Your task to perform on an android device: change notification settings in the gmail app Image 0: 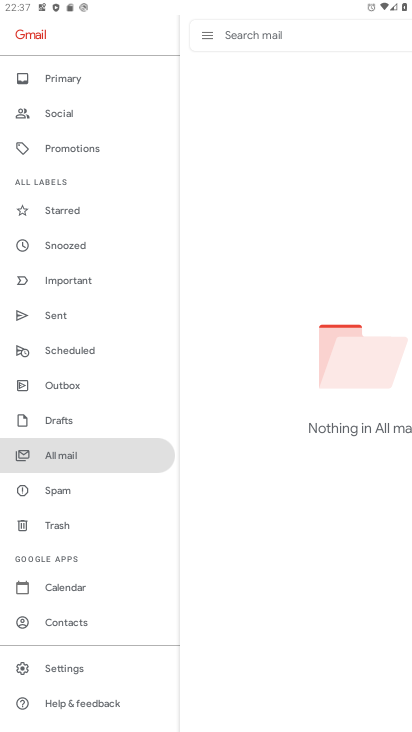
Step 0: click (67, 665)
Your task to perform on an android device: change notification settings in the gmail app Image 1: 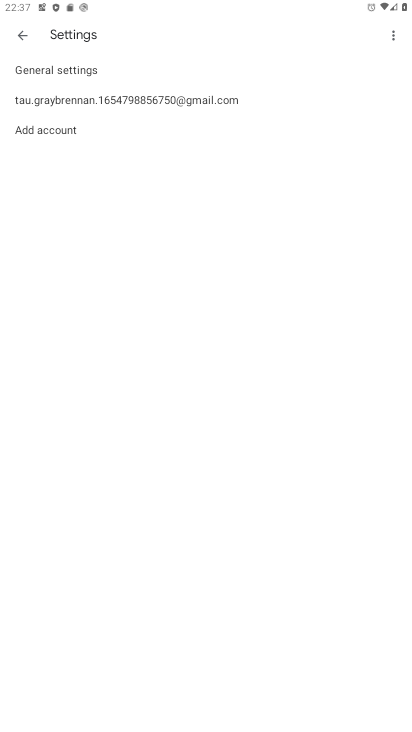
Step 1: click (75, 96)
Your task to perform on an android device: change notification settings in the gmail app Image 2: 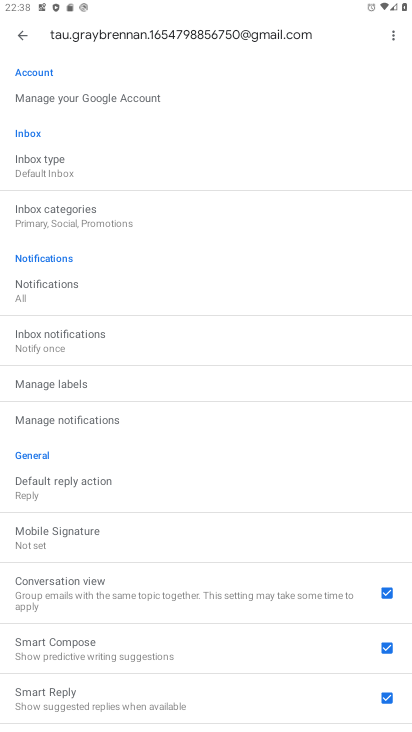
Step 2: click (34, 284)
Your task to perform on an android device: change notification settings in the gmail app Image 3: 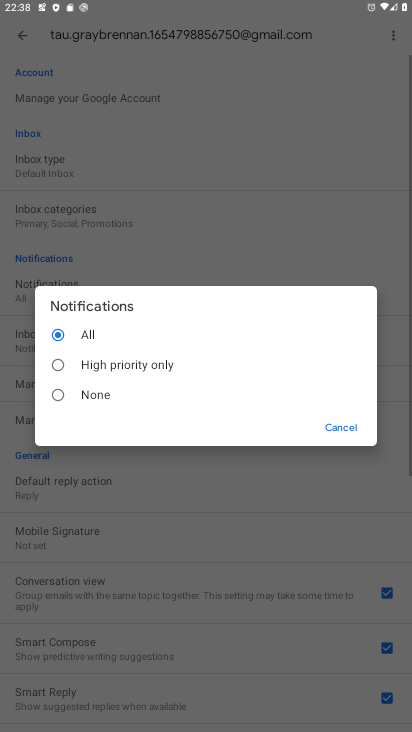
Step 3: click (51, 392)
Your task to perform on an android device: change notification settings in the gmail app Image 4: 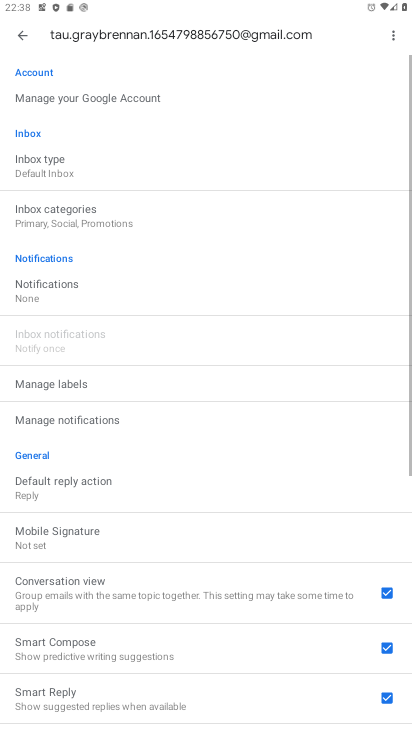
Step 4: task complete